Your task to perform on an android device: clear history in the chrome app Image 0: 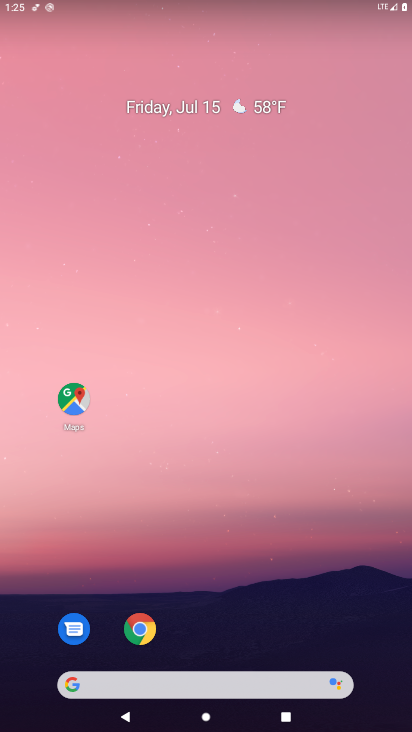
Step 0: drag from (336, 626) to (333, 173)
Your task to perform on an android device: clear history in the chrome app Image 1: 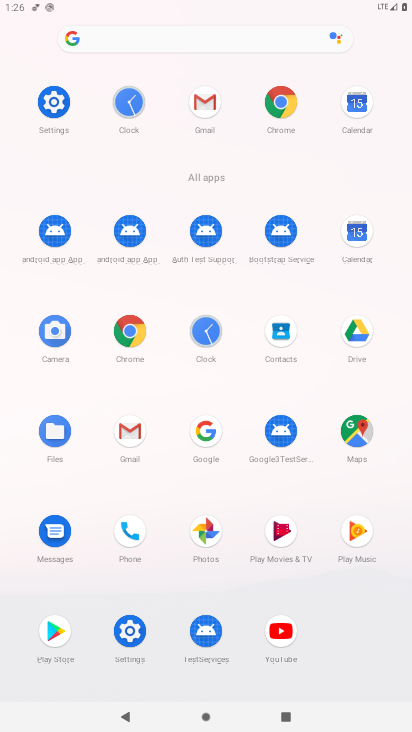
Step 1: click (289, 108)
Your task to perform on an android device: clear history in the chrome app Image 2: 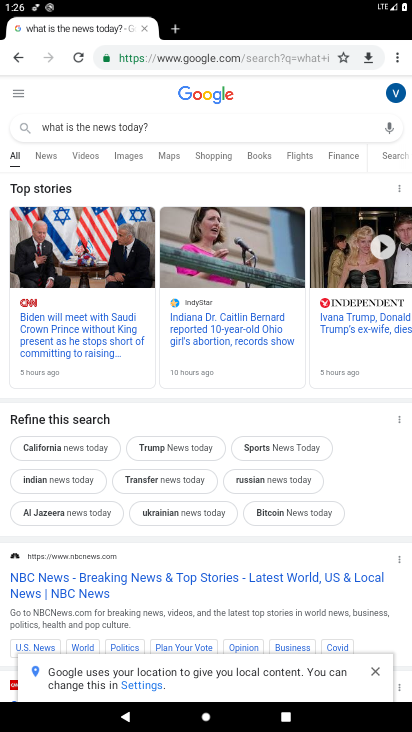
Step 2: drag from (396, 50) to (287, 176)
Your task to perform on an android device: clear history in the chrome app Image 3: 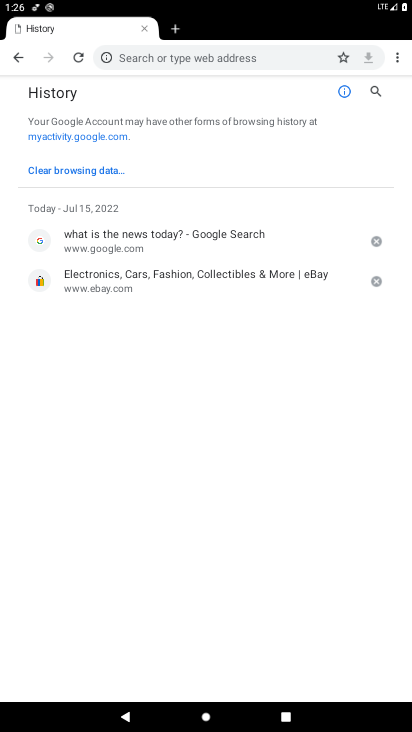
Step 3: click (102, 163)
Your task to perform on an android device: clear history in the chrome app Image 4: 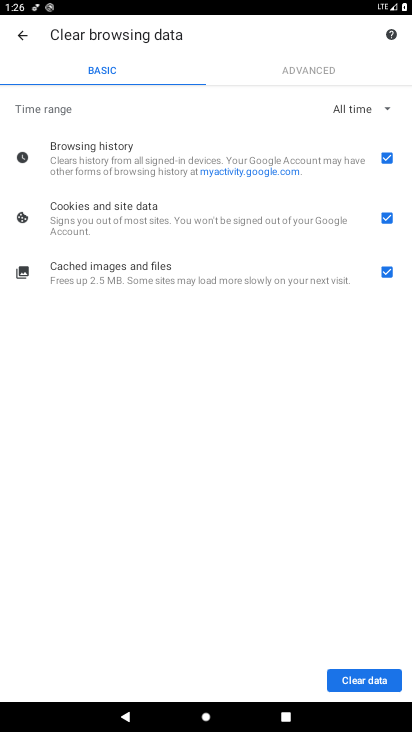
Step 4: click (391, 681)
Your task to perform on an android device: clear history in the chrome app Image 5: 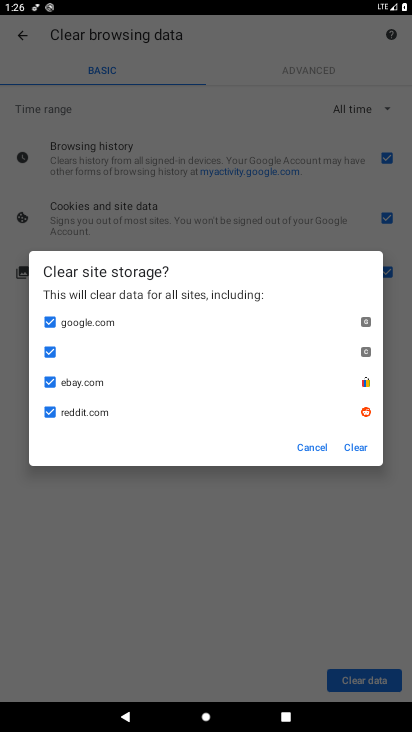
Step 5: click (342, 452)
Your task to perform on an android device: clear history in the chrome app Image 6: 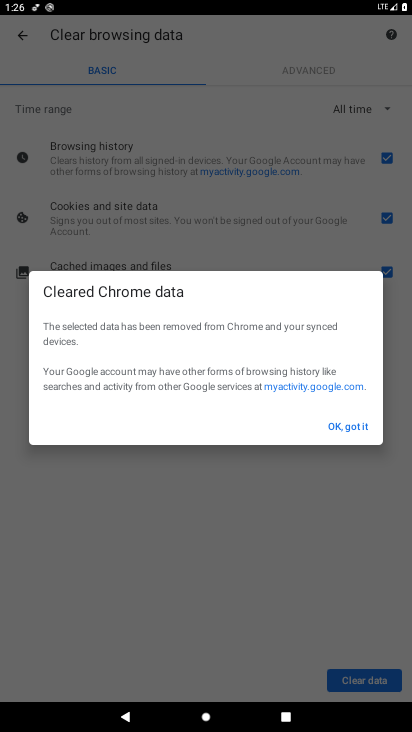
Step 6: click (323, 431)
Your task to perform on an android device: clear history in the chrome app Image 7: 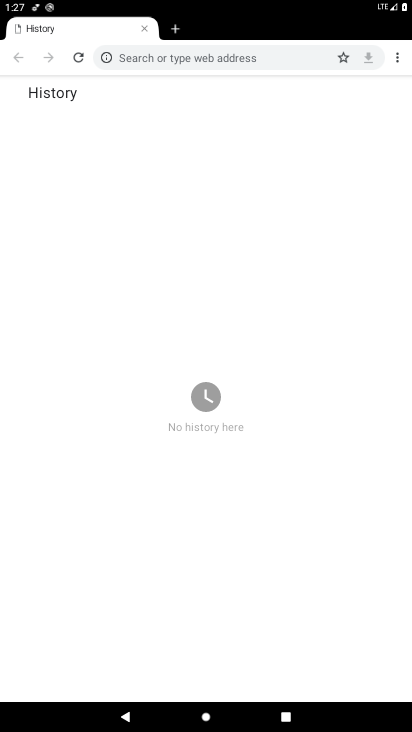
Step 7: task complete